Your task to perform on an android device: Go to Yahoo.com Image 0: 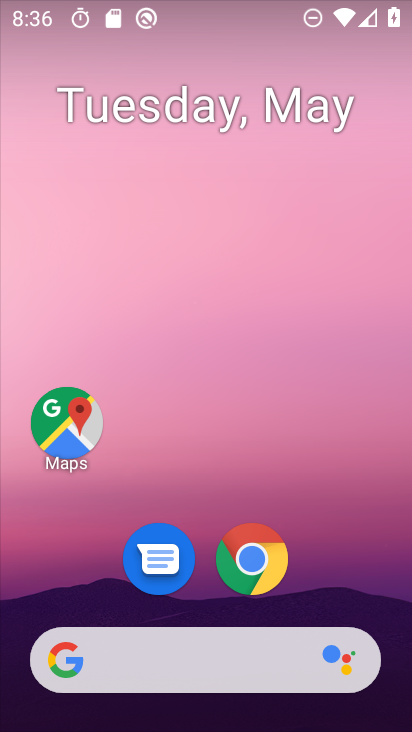
Step 0: drag from (402, 623) to (298, 37)
Your task to perform on an android device: Go to Yahoo.com Image 1: 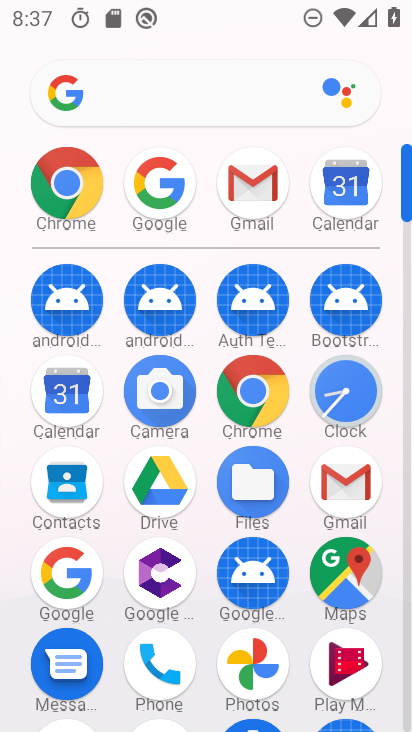
Step 1: click (85, 572)
Your task to perform on an android device: Go to Yahoo.com Image 2: 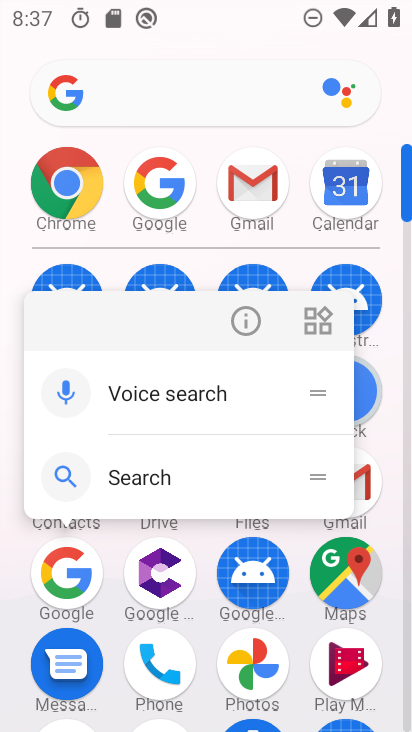
Step 2: click (85, 572)
Your task to perform on an android device: Go to Yahoo.com Image 3: 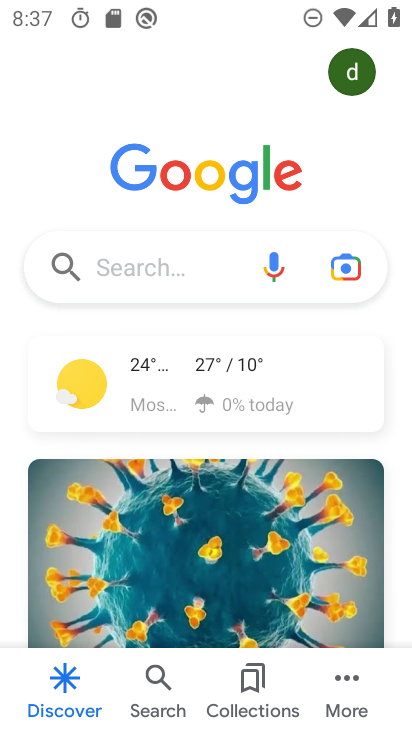
Step 3: click (167, 266)
Your task to perform on an android device: Go to Yahoo.com Image 4: 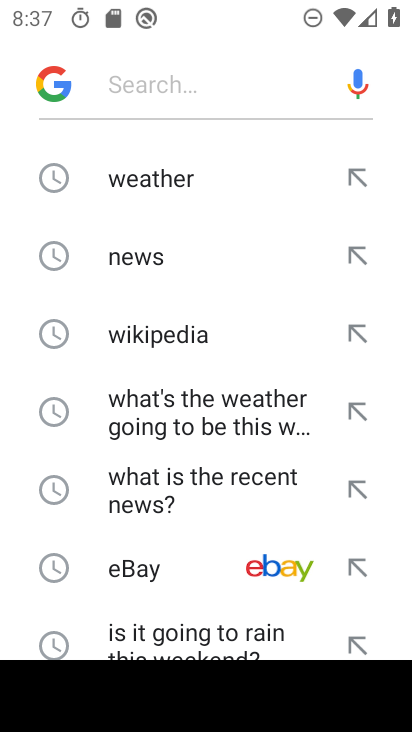
Step 4: drag from (185, 551) to (255, 126)
Your task to perform on an android device: Go to Yahoo.com Image 5: 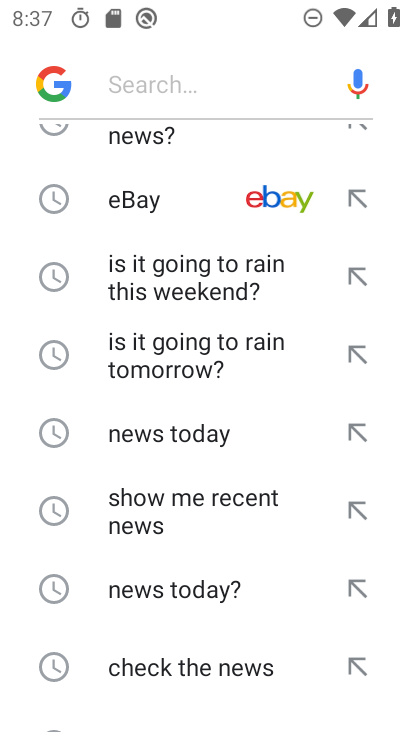
Step 5: drag from (144, 635) to (210, 169)
Your task to perform on an android device: Go to Yahoo.com Image 6: 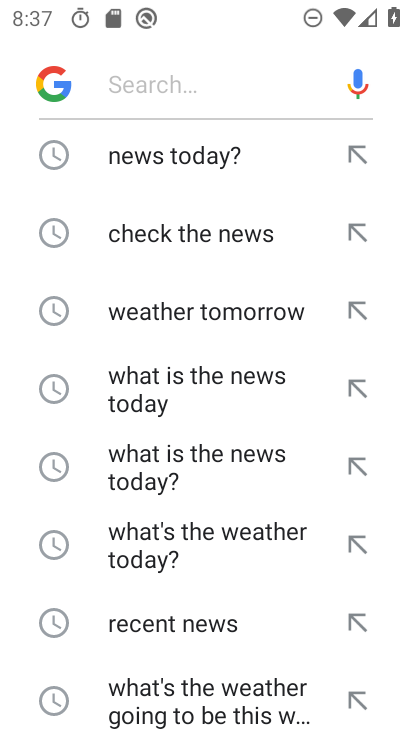
Step 6: drag from (174, 651) to (258, 164)
Your task to perform on an android device: Go to Yahoo.com Image 7: 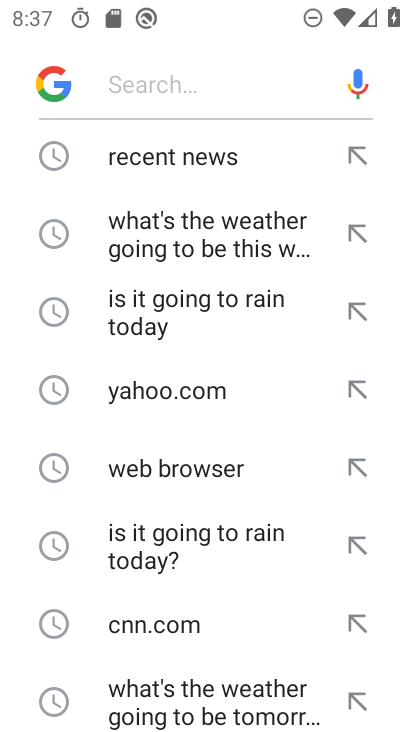
Step 7: click (165, 390)
Your task to perform on an android device: Go to Yahoo.com Image 8: 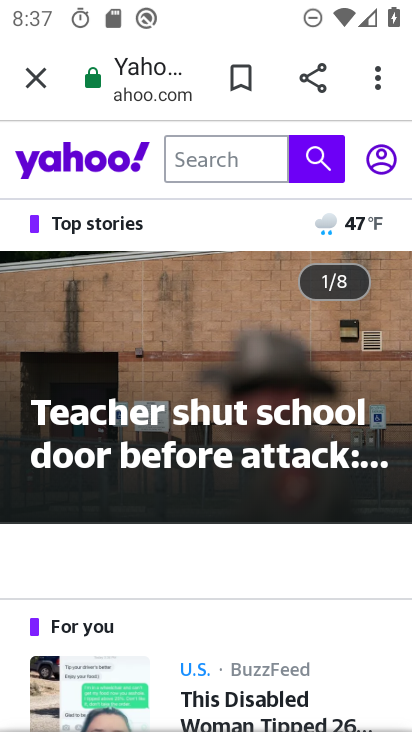
Step 8: task complete